Your task to perform on an android device: install app "Grab" Image 0: 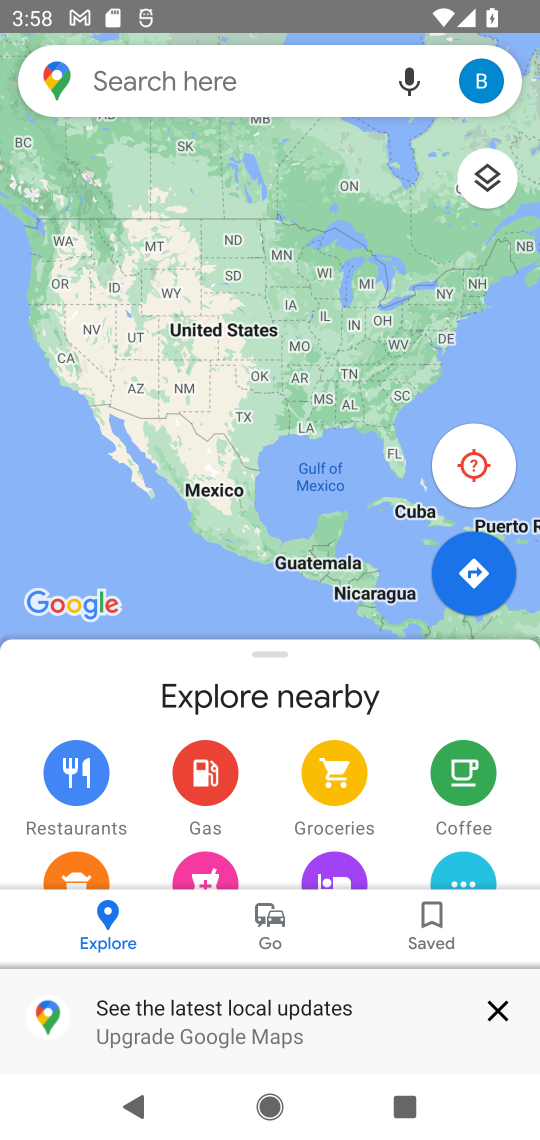
Step 0: press home button
Your task to perform on an android device: install app "Grab" Image 1: 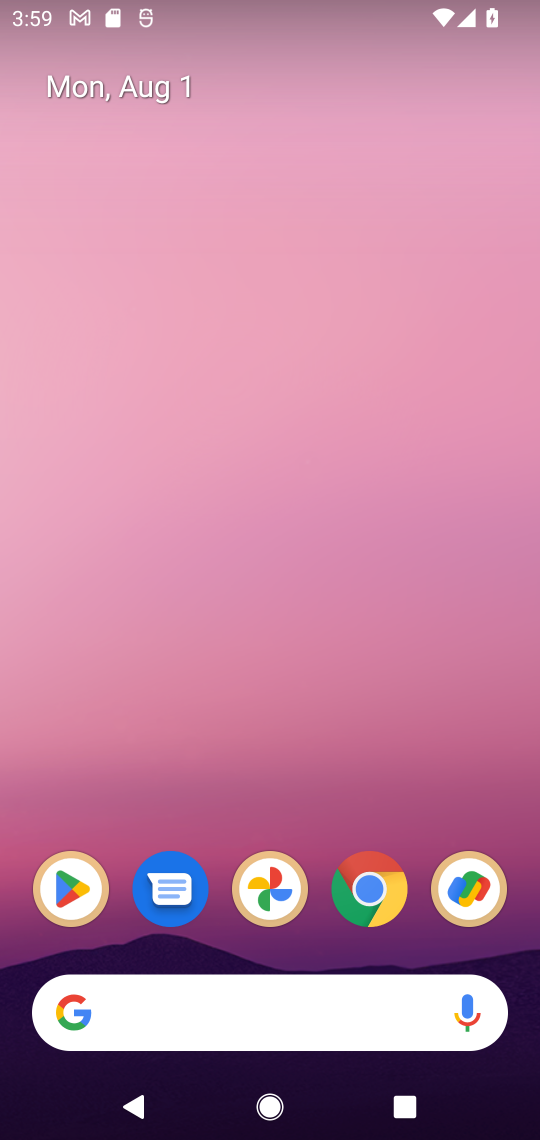
Step 1: click (78, 869)
Your task to perform on an android device: install app "Grab" Image 2: 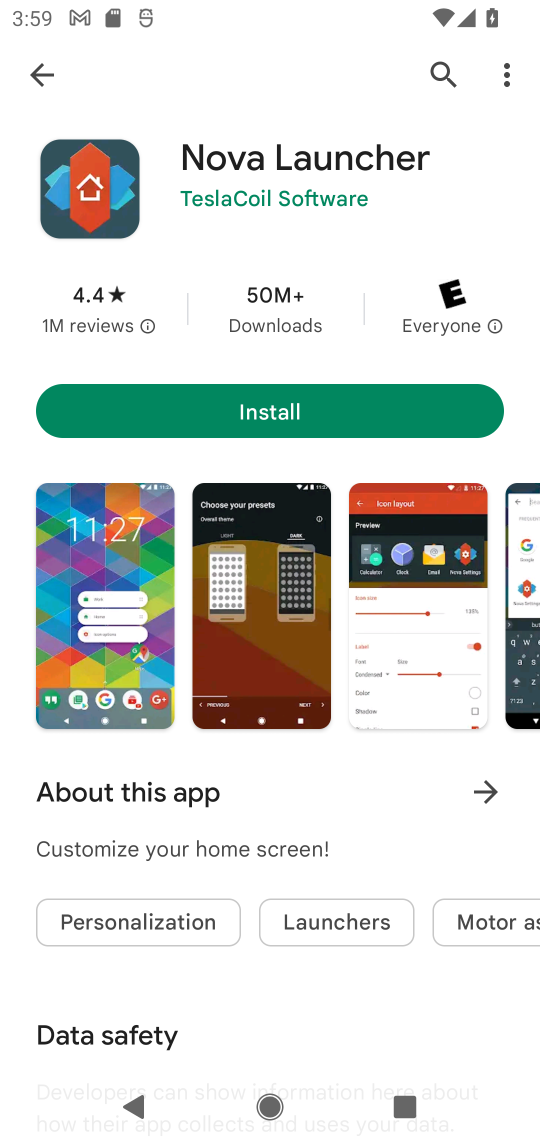
Step 2: click (455, 74)
Your task to perform on an android device: install app "Grab" Image 3: 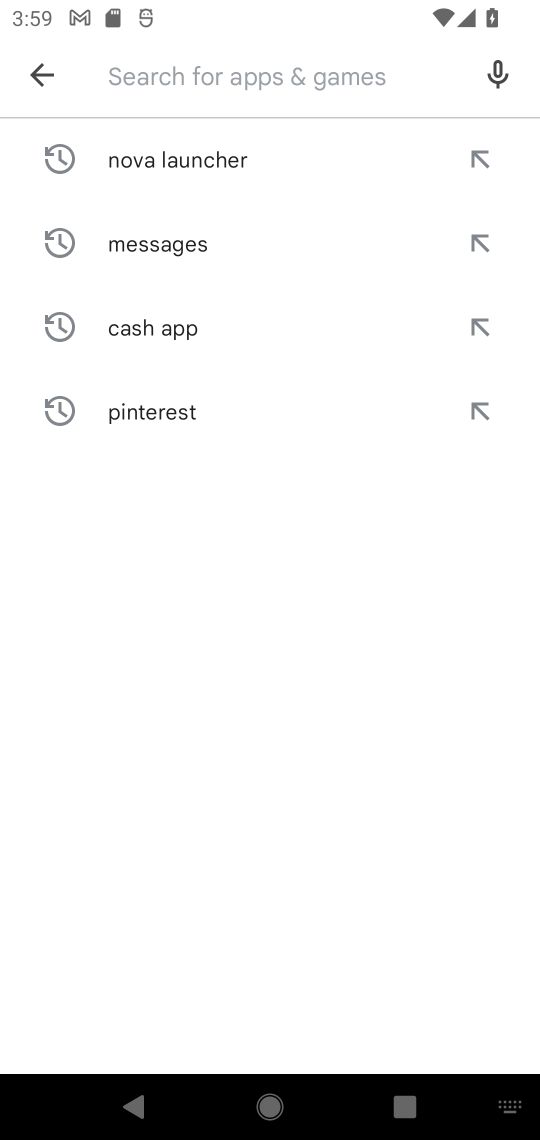
Step 3: type "Grab"
Your task to perform on an android device: install app "Grab" Image 4: 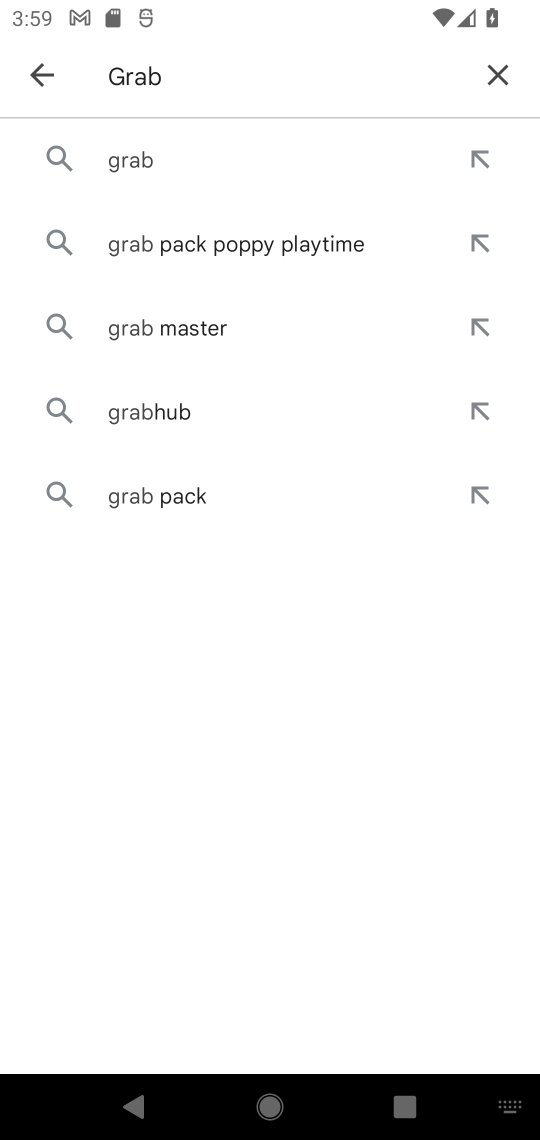
Step 4: click (172, 138)
Your task to perform on an android device: install app "Grab" Image 5: 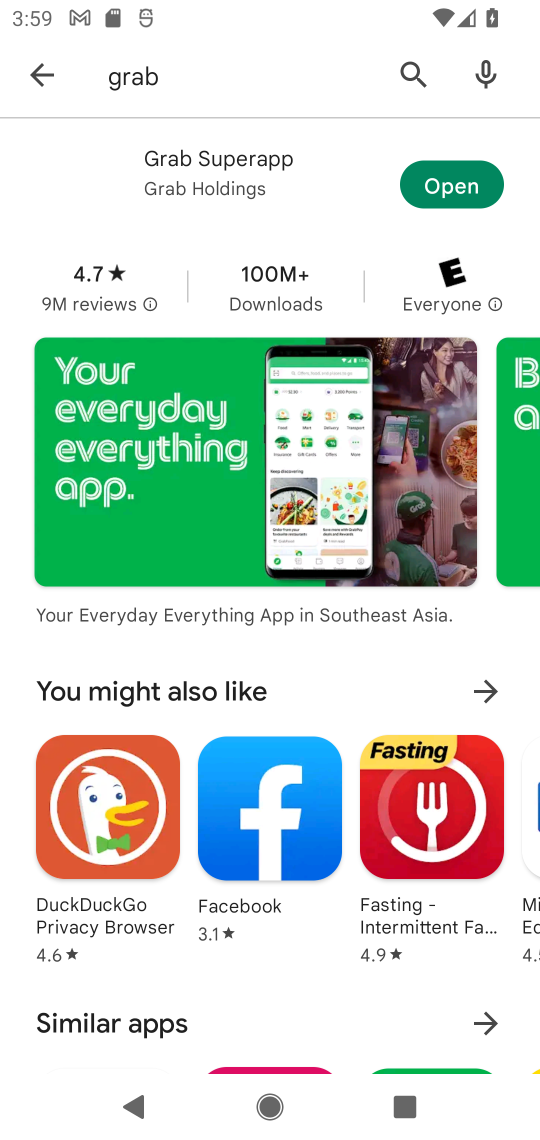
Step 5: task complete